Your task to perform on an android device: Do I have any events today? Image 0: 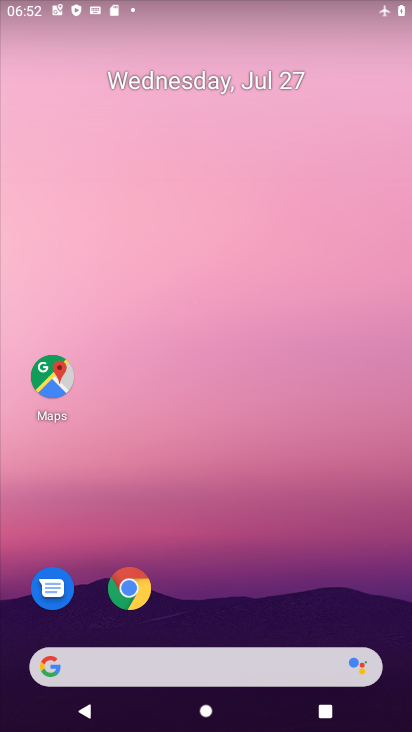
Step 0: press home button
Your task to perform on an android device: Do I have any events today? Image 1: 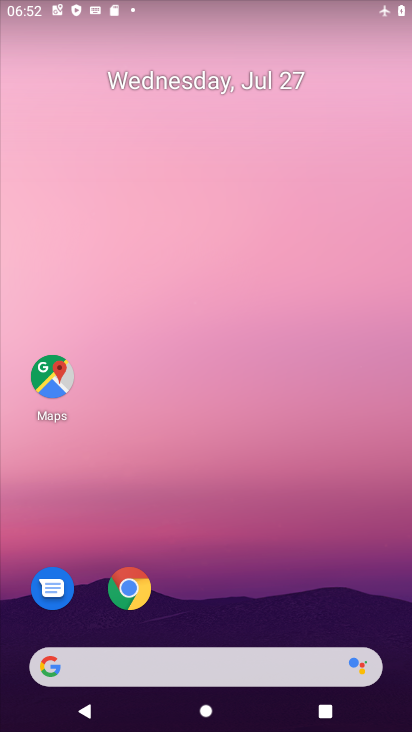
Step 1: drag from (173, 658) to (398, 379)
Your task to perform on an android device: Do I have any events today? Image 2: 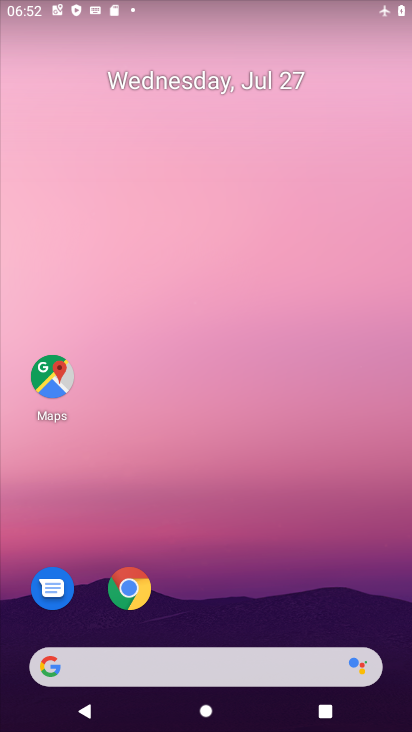
Step 2: drag from (271, 662) to (322, 95)
Your task to perform on an android device: Do I have any events today? Image 3: 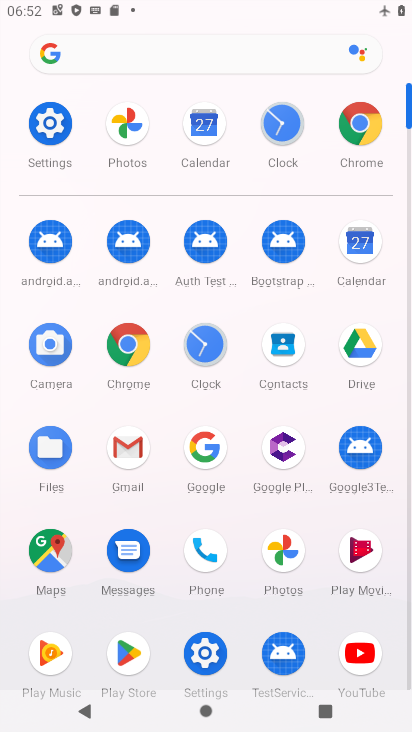
Step 3: click (351, 240)
Your task to perform on an android device: Do I have any events today? Image 4: 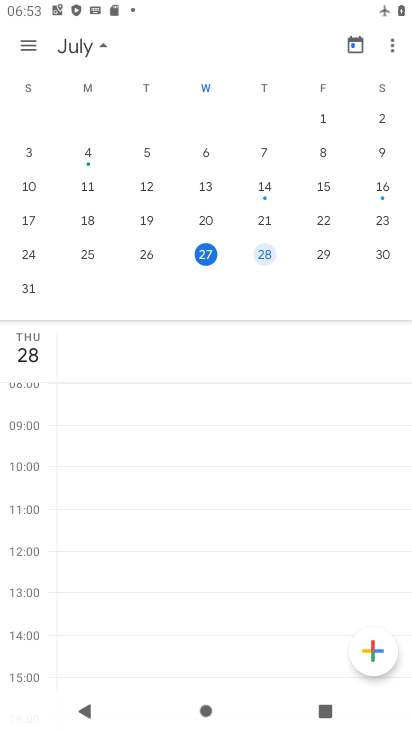
Step 4: press home button
Your task to perform on an android device: Do I have any events today? Image 5: 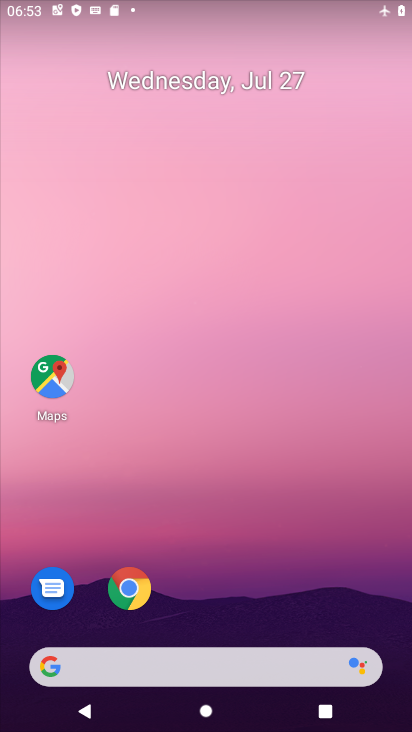
Step 5: drag from (271, 678) to (243, 98)
Your task to perform on an android device: Do I have any events today? Image 6: 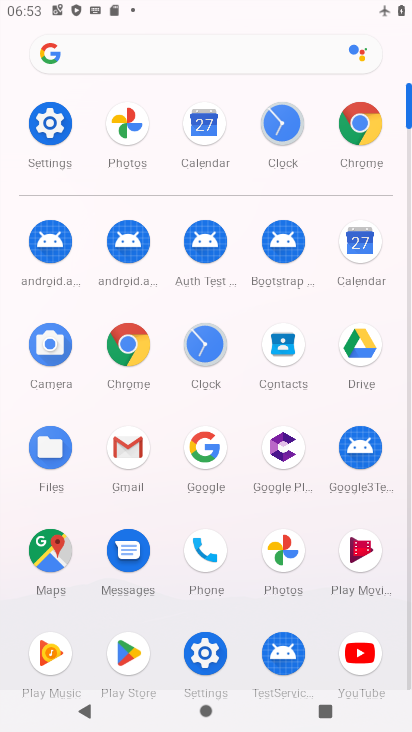
Step 6: click (372, 250)
Your task to perform on an android device: Do I have any events today? Image 7: 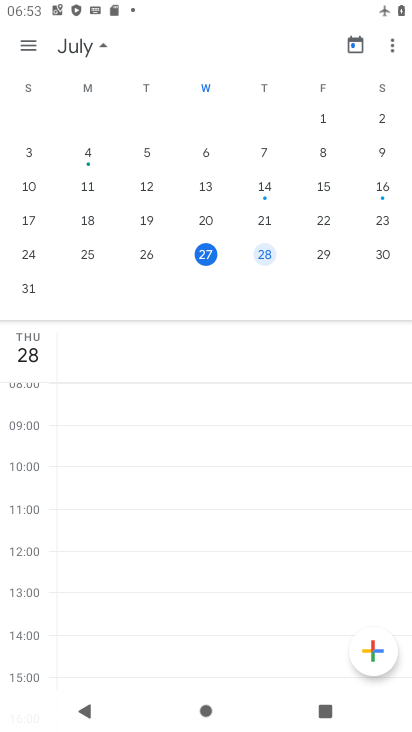
Step 7: click (378, 219)
Your task to perform on an android device: Do I have any events today? Image 8: 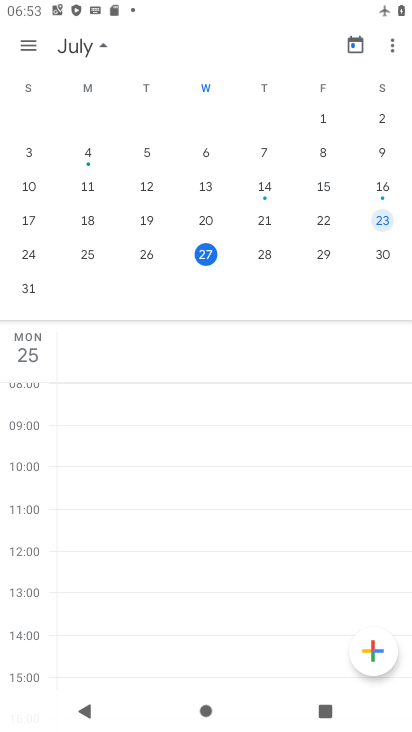
Step 8: drag from (378, 219) to (309, 224)
Your task to perform on an android device: Do I have any events today? Image 9: 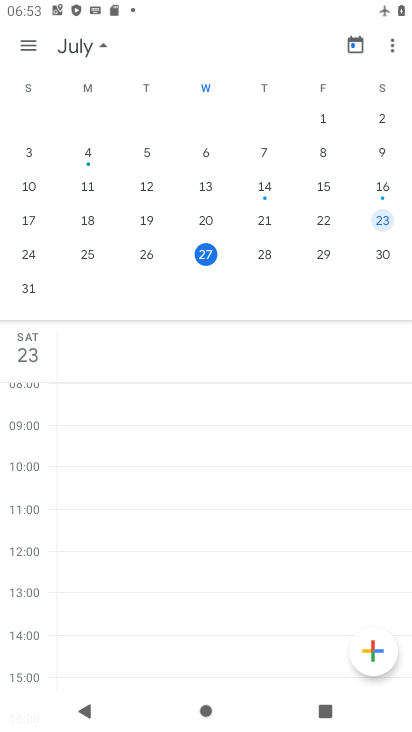
Step 9: click (209, 256)
Your task to perform on an android device: Do I have any events today? Image 10: 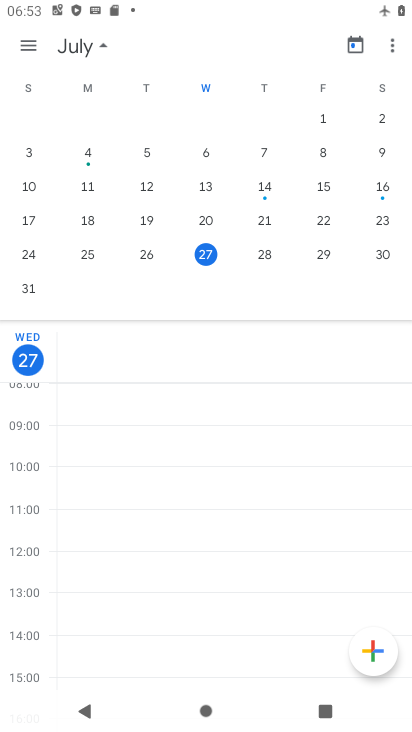
Step 10: task complete